Your task to perform on an android device: Check the weather Image 0: 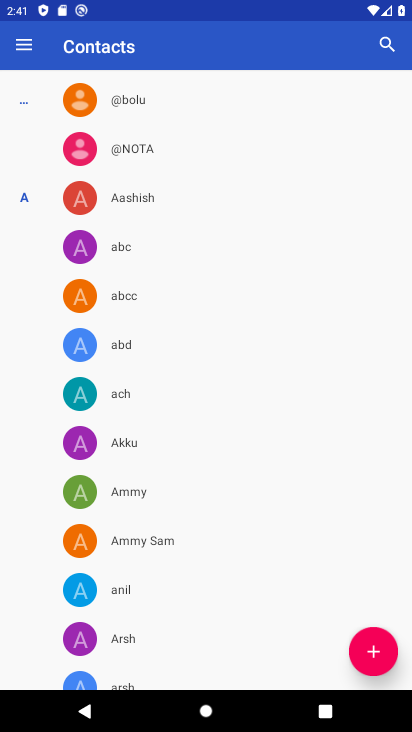
Step 0: press home button
Your task to perform on an android device: Check the weather Image 1: 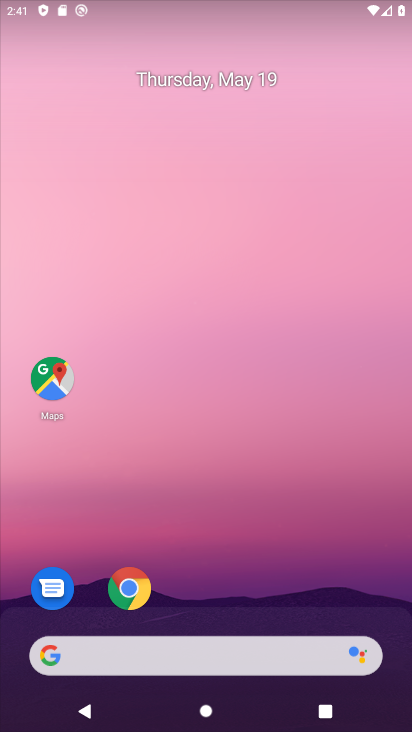
Step 1: drag from (354, 601) to (314, 169)
Your task to perform on an android device: Check the weather Image 2: 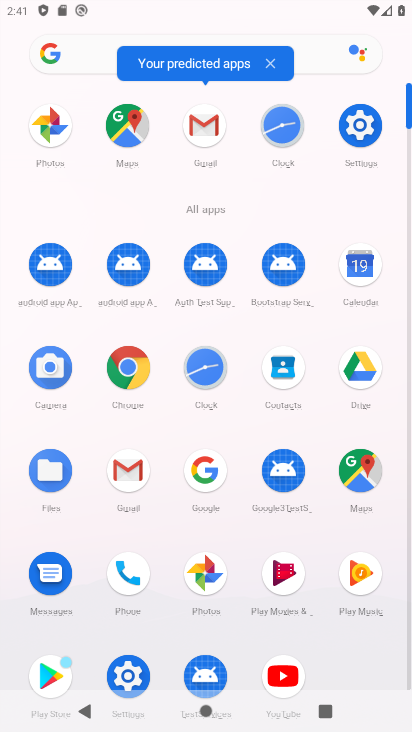
Step 2: click (124, 365)
Your task to perform on an android device: Check the weather Image 3: 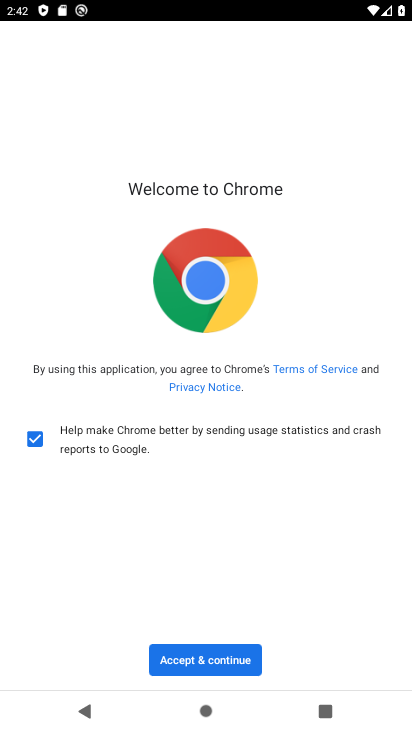
Step 3: click (244, 659)
Your task to perform on an android device: Check the weather Image 4: 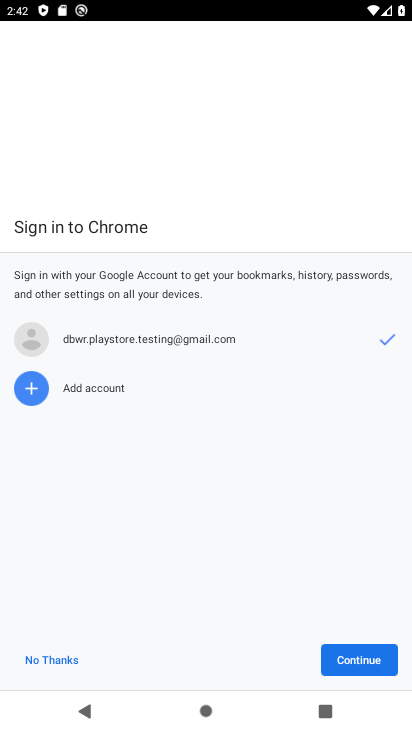
Step 4: click (355, 657)
Your task to perform on an android device: Check the weather Image 5: 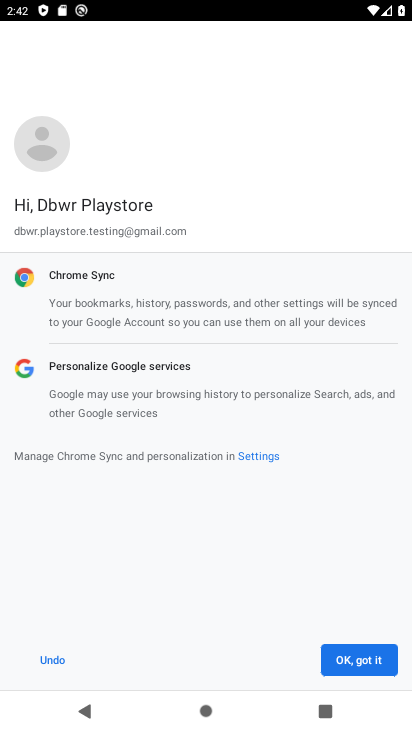
Step 5: click (354, 648)
Your task to perform on an android device: Check the weather Image 6: 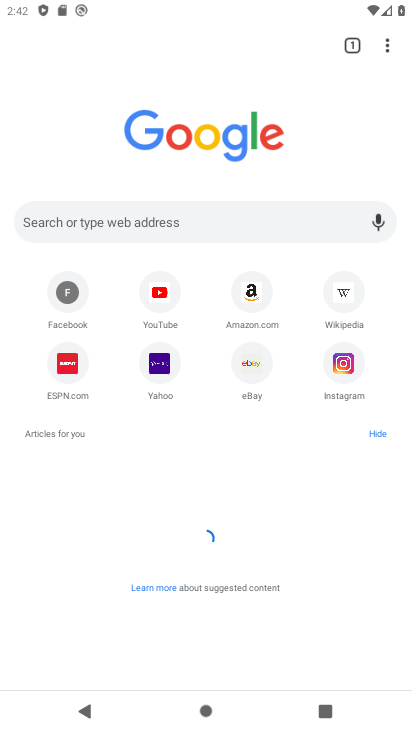
Step 6: click (191, 230)
Your task to perform on an android device: Check the weather Image 7: 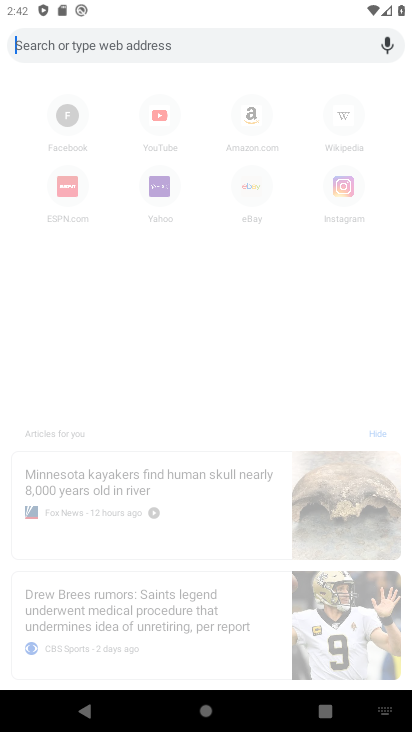
Step 7: type "check the weather"
Your task to perform on an android device: Check the weather Image 8: 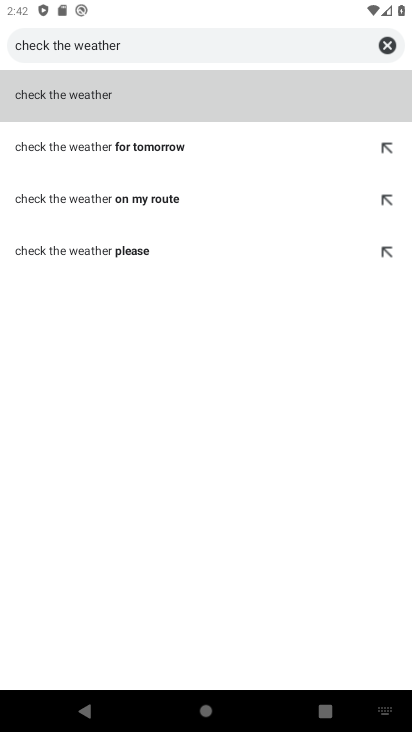
Step 8: click (100, 102)
Your task to perform on an android device: Check the weather Image 9: 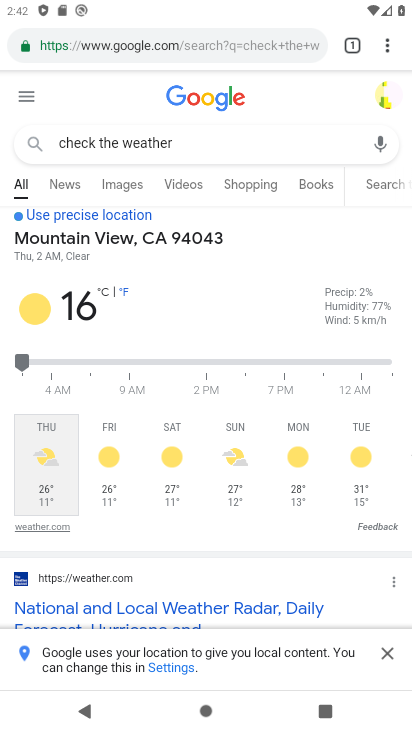
Step 9: task complete